Your task to perform on an android device: Is it going to rain today? Image 0: 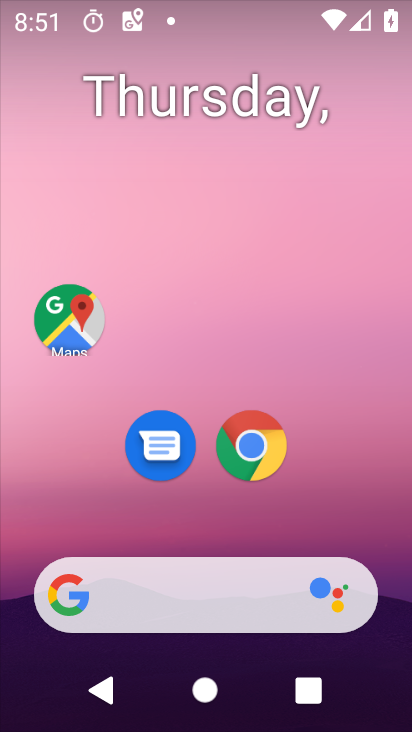
Step 0: click (164, 586)
Your task to perform on an android device: Is it going to rain today? Image 1: 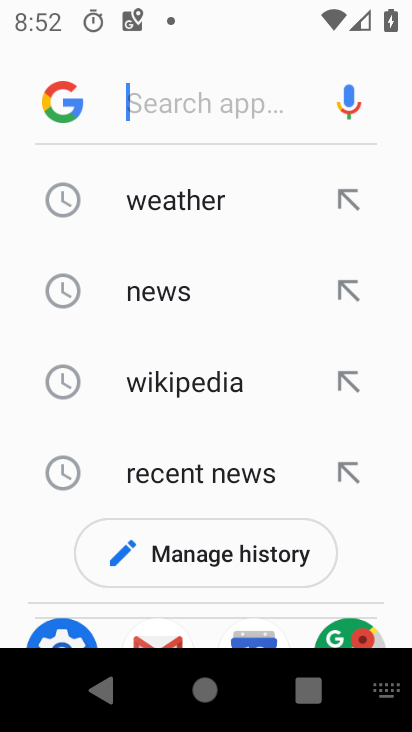
Step 1: click (188, 209)
Your task to perform on an android device: Is it going to rain today? Image 2: 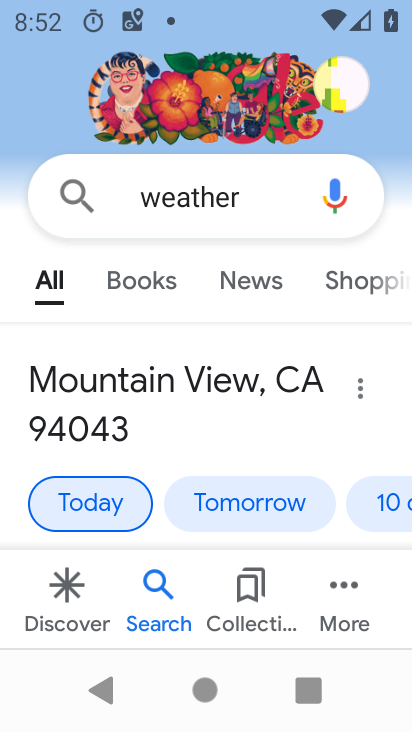
Step 2: task complete